Your task to perform on an android device: Clear the cart on newegg. Search for "razer deathadder" on newegg, select the first entry, and add it to the cart. Image 0: 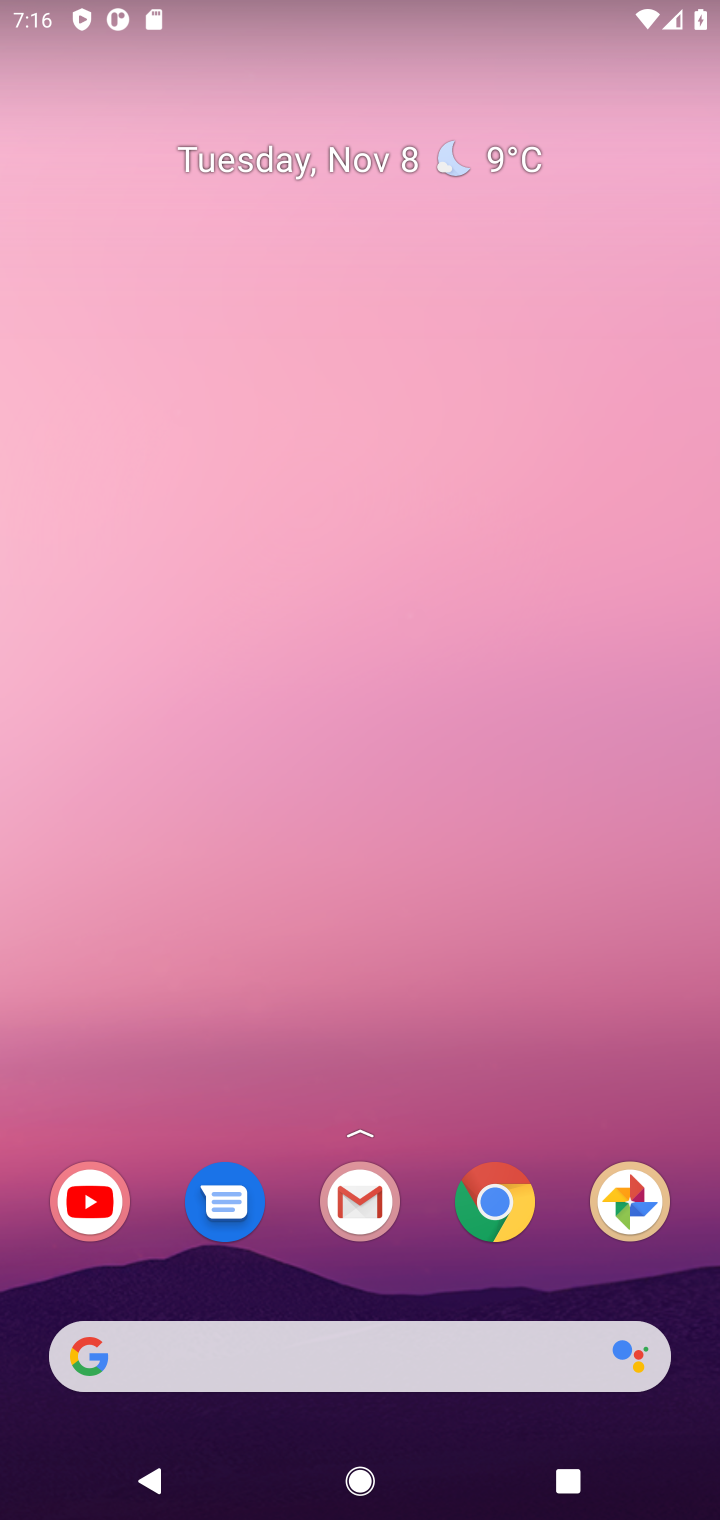
Step 0: click (287, 1321)
Your task to perform on an android device: Clear the cart on newegg. Search for "razer deathadder" on newegg, select the first entry, and add it to the cart. Image 1: 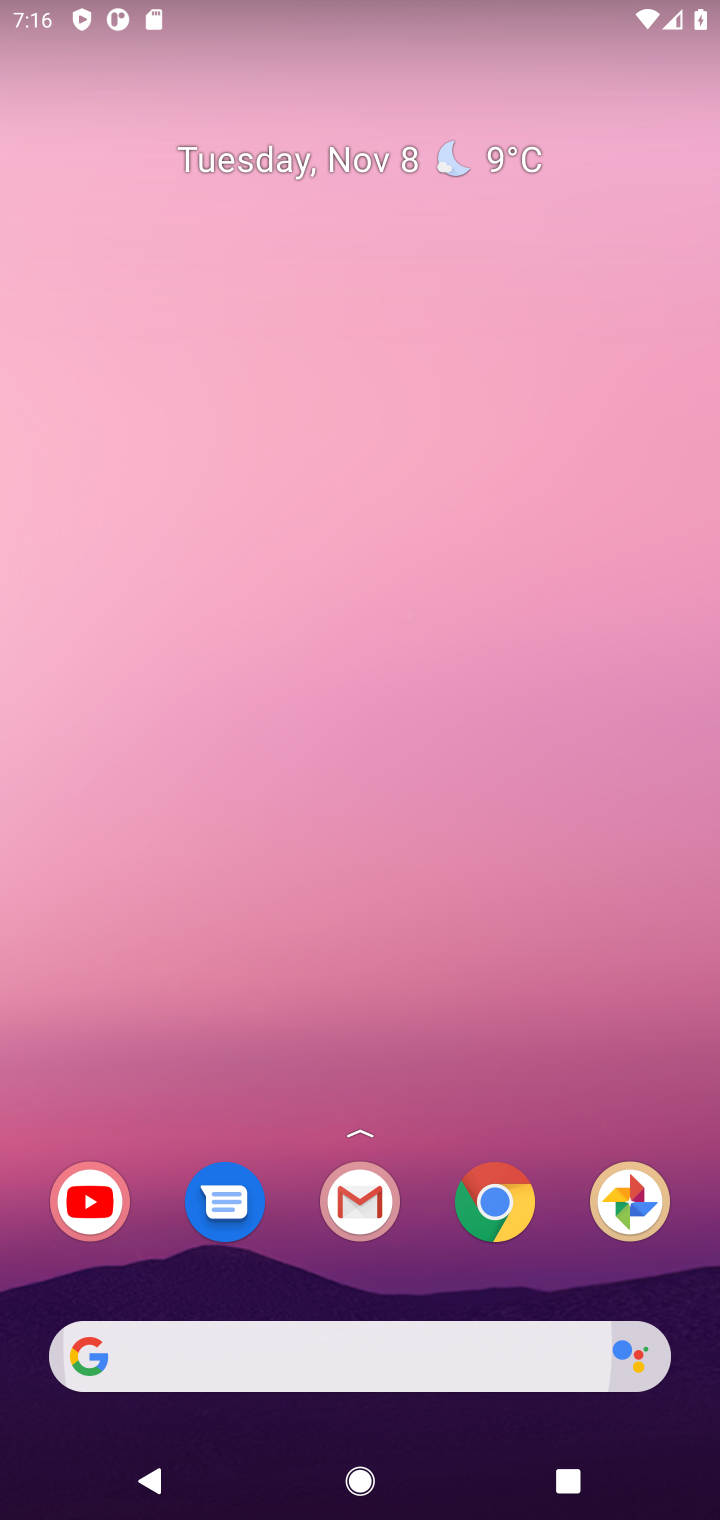
Step 1: click (290, 1344)
Your task to perform on an android device: Clear the cart on newegg. Search for "razer deathadder" on newegg, select the first entry, and add it to the cart. Image 2: 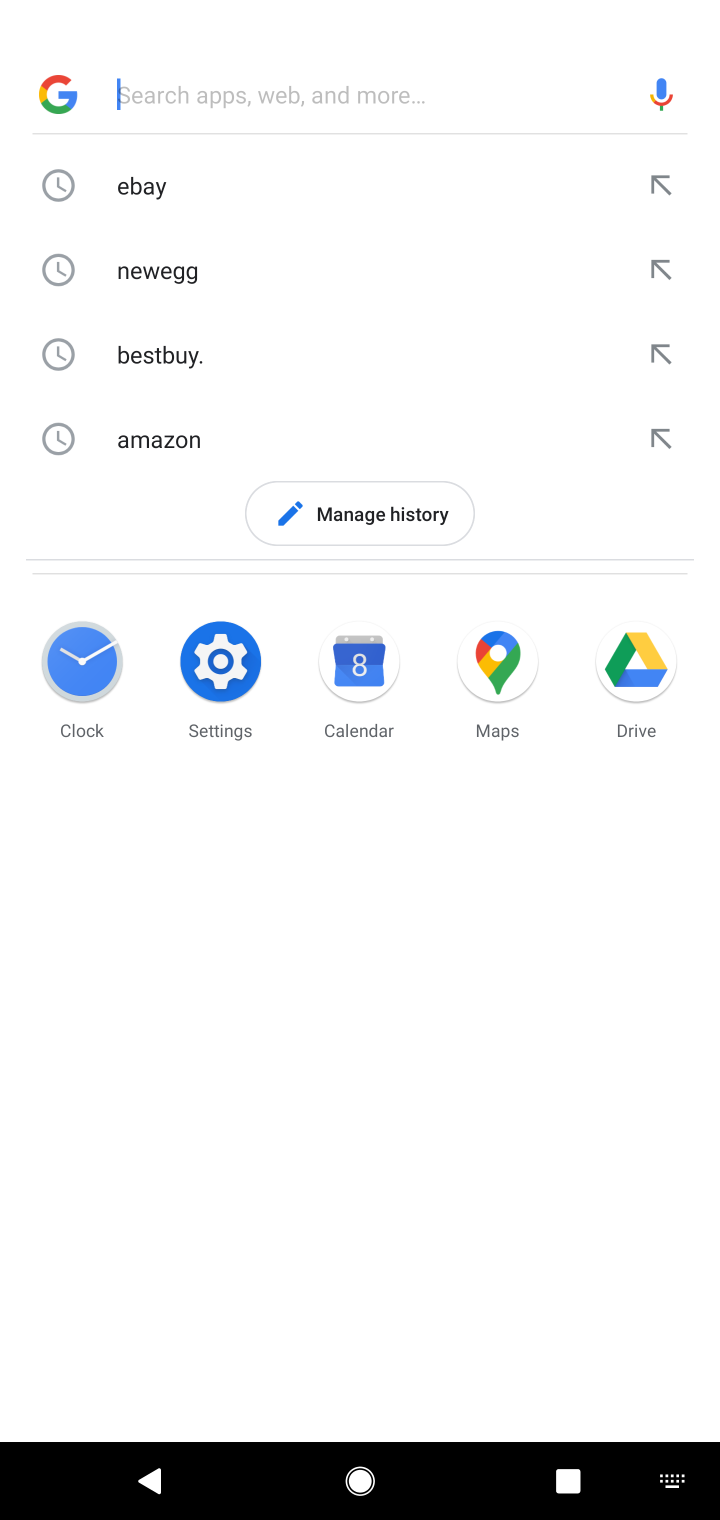
Step 2: click (290, 1344)
Your task to perform on an android device: Clear the cart on newegg. Search for "razer deathadder" on newegg, select the first entry, and add it to the cart. Image 3: 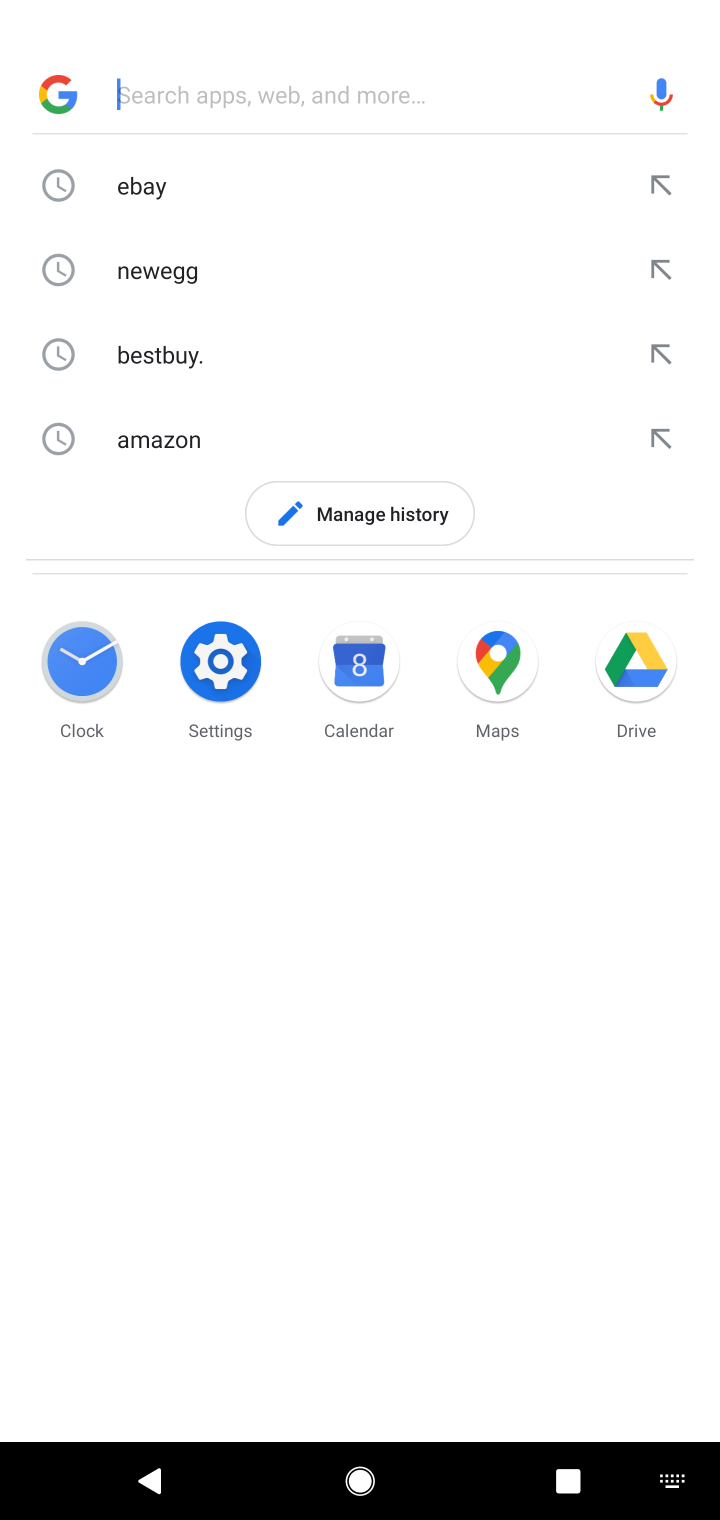
Step 3: type "newegg"
Your task to perform on an android device: Clear the cart on newegg. Search for "razer deathadder" on newegg, select the first entry, and add it to the cart. Image 4: 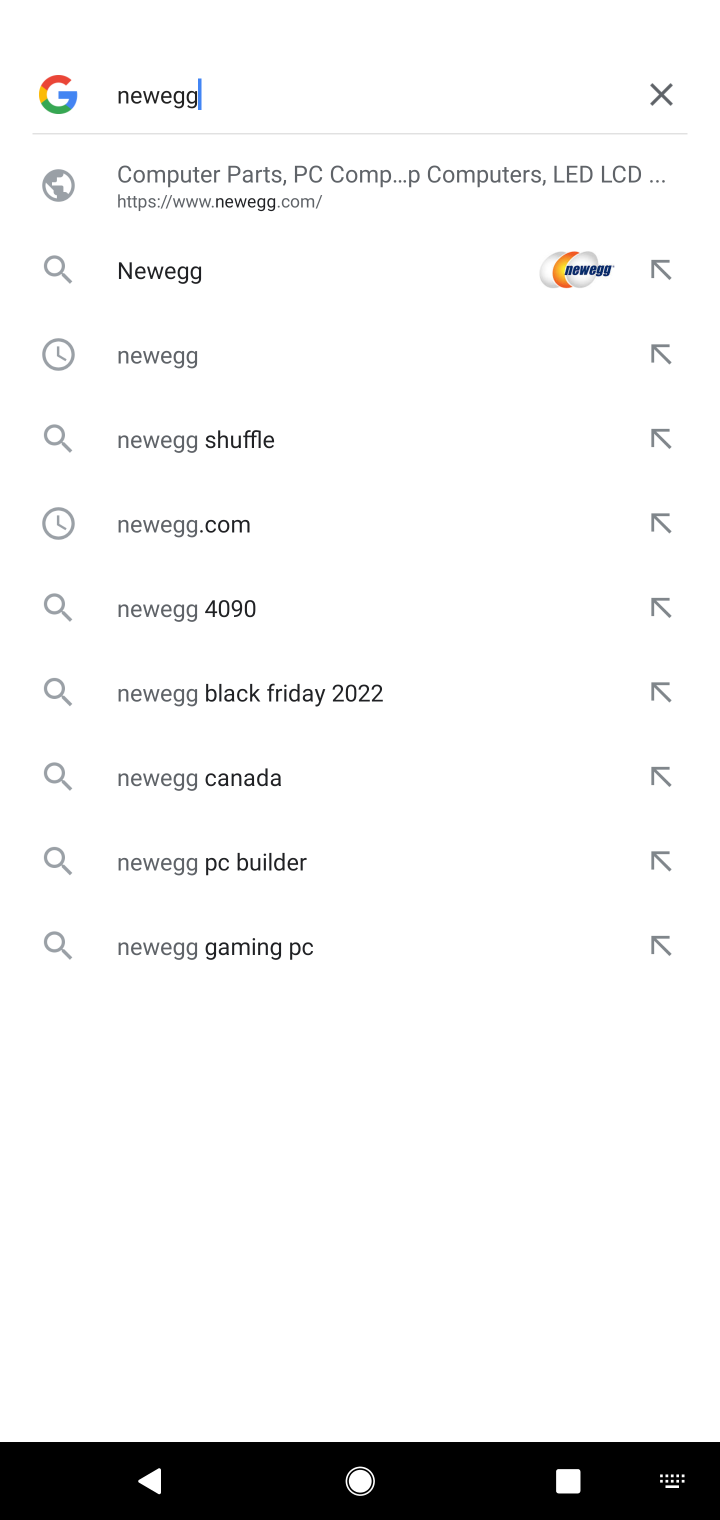
Step 4: type ""
Your task to perform on an android device: Clear the cart on newegg. Search for "razer deathadder" on newegg, select the first entry, and add it to the cart. Image 5: 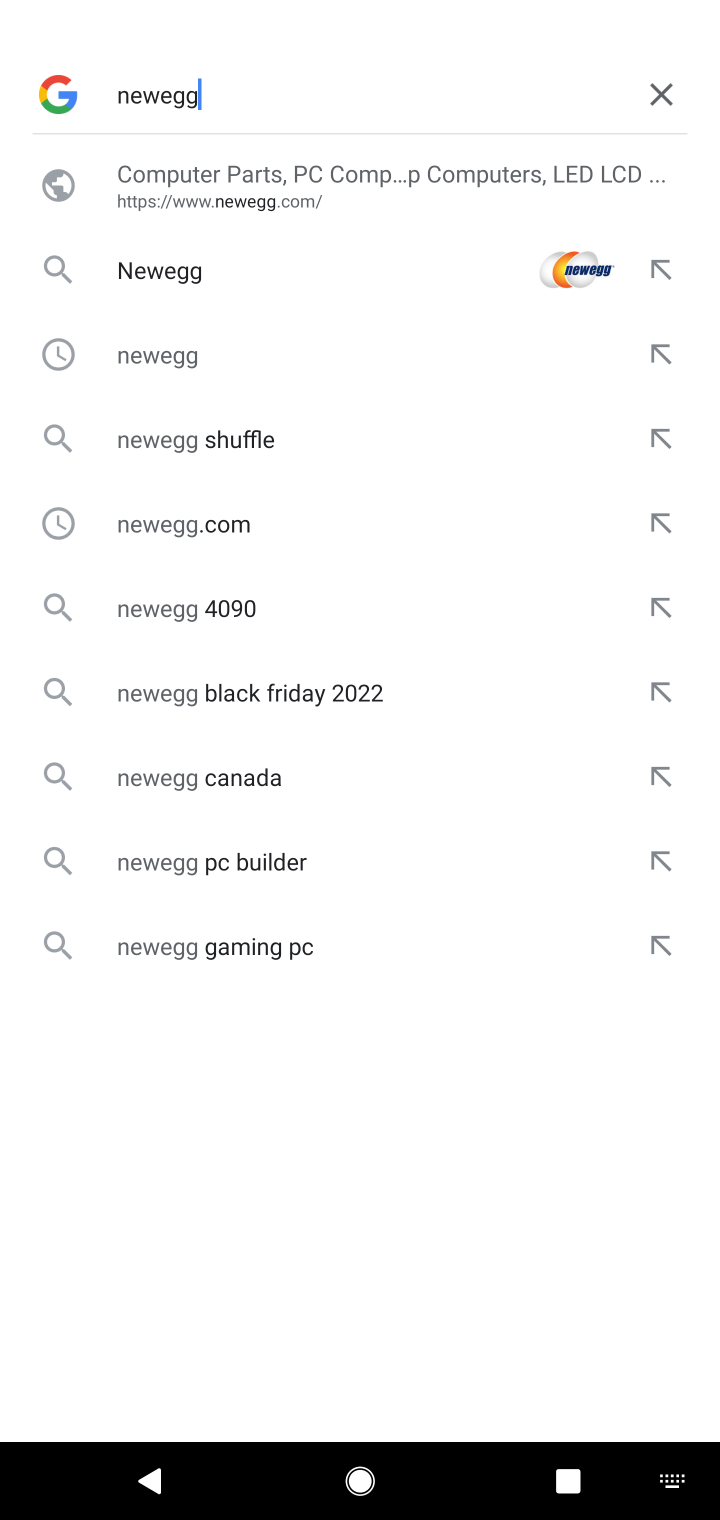
Step 5: press enter
Your task to perform on an android device: Clear the cart on newegg. Search for "razer deathadder" on newegg, select the first entry, and add it to the cart. Image 6: 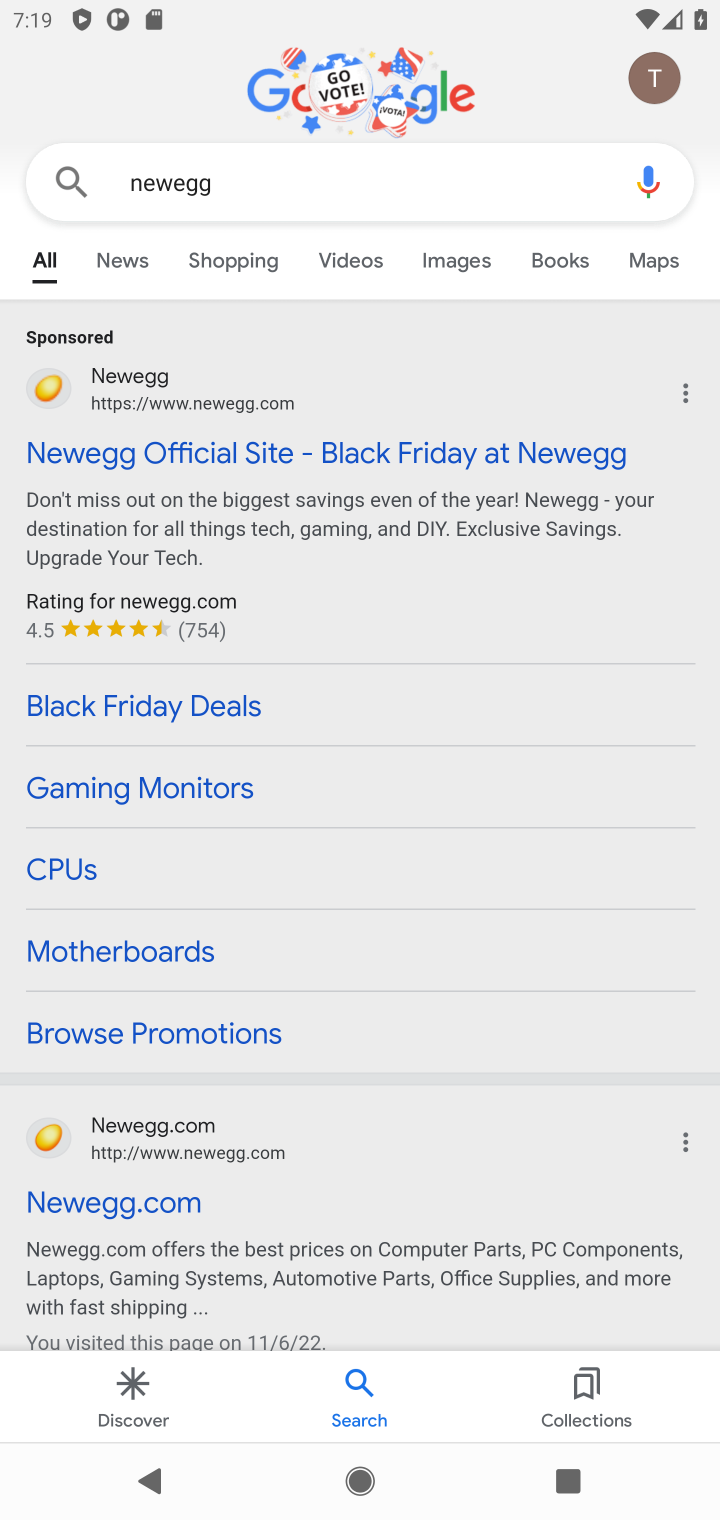
Step 6: click (240, 452)
Your task to perform on an android device: Clear the cart on newegg. Search for "razer deathadder" on newegg, select the first entry, and add it to the cart. Image 7: 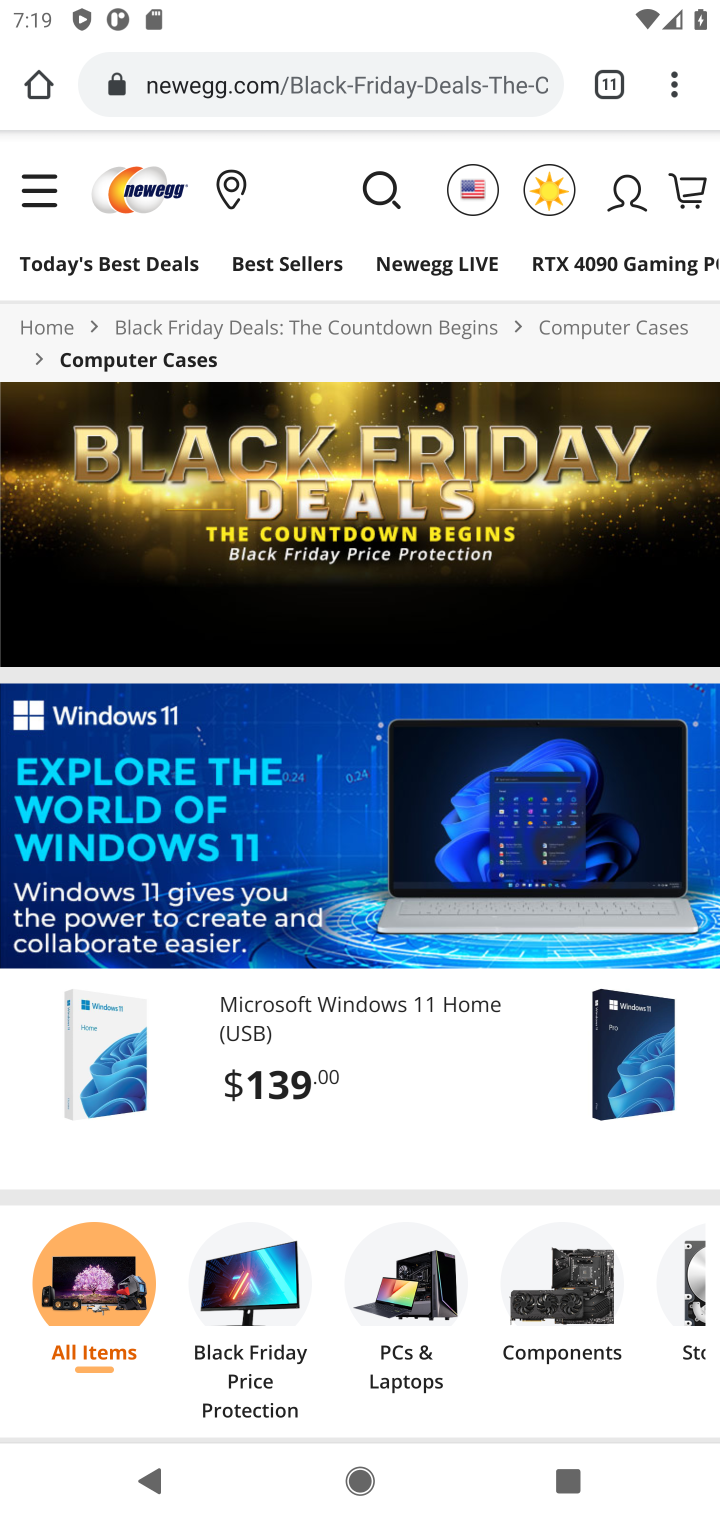
Step 7: drag from (292, 693) to (346, 349)
Your task to perform on an android device: Clear the cart on newegg. Search for "razer deathadder" on newegg, select the first entry, and add it to the cart. Image 8: 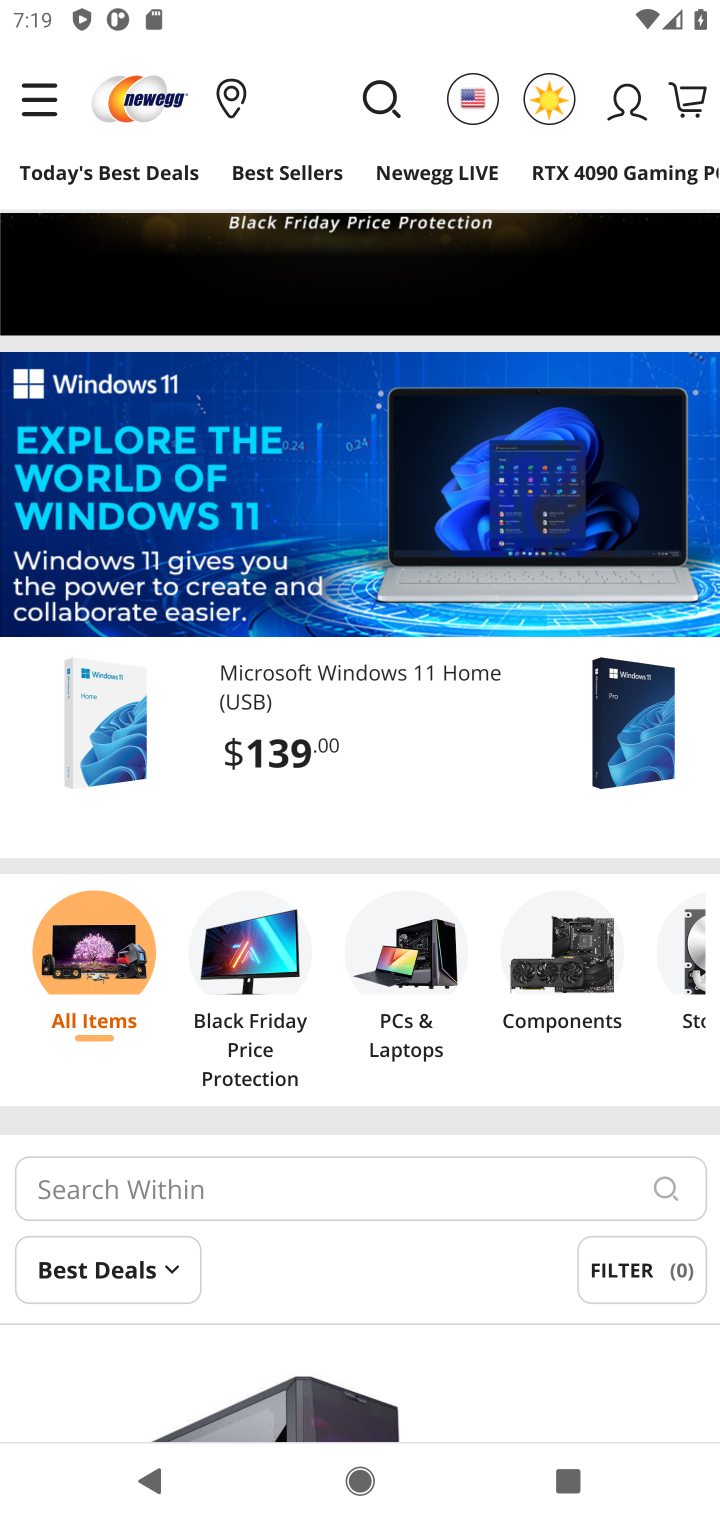
Step 8: click (173, 1164)
Your task to perform on an android device: Clear the cart on newegg. Search for "razer deathadder" on newegg, select the first entry, and add it to the cart. Image 9: 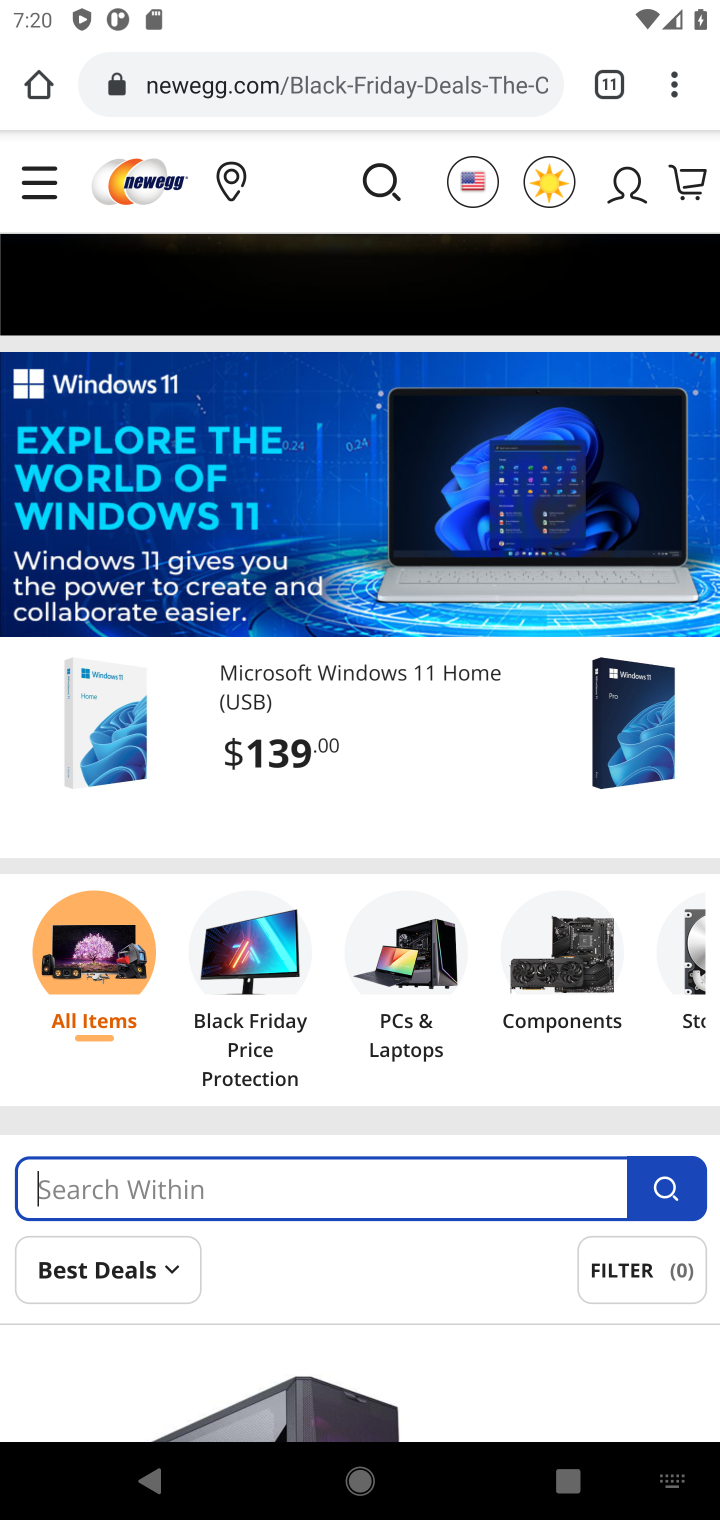
Step 9: type "razer deathadder"
Your task to perform on an android device: Clear the cart on newegg. Search for "razer deathadder" on newegg, select the first entry, and add it to the cart. Image 10: 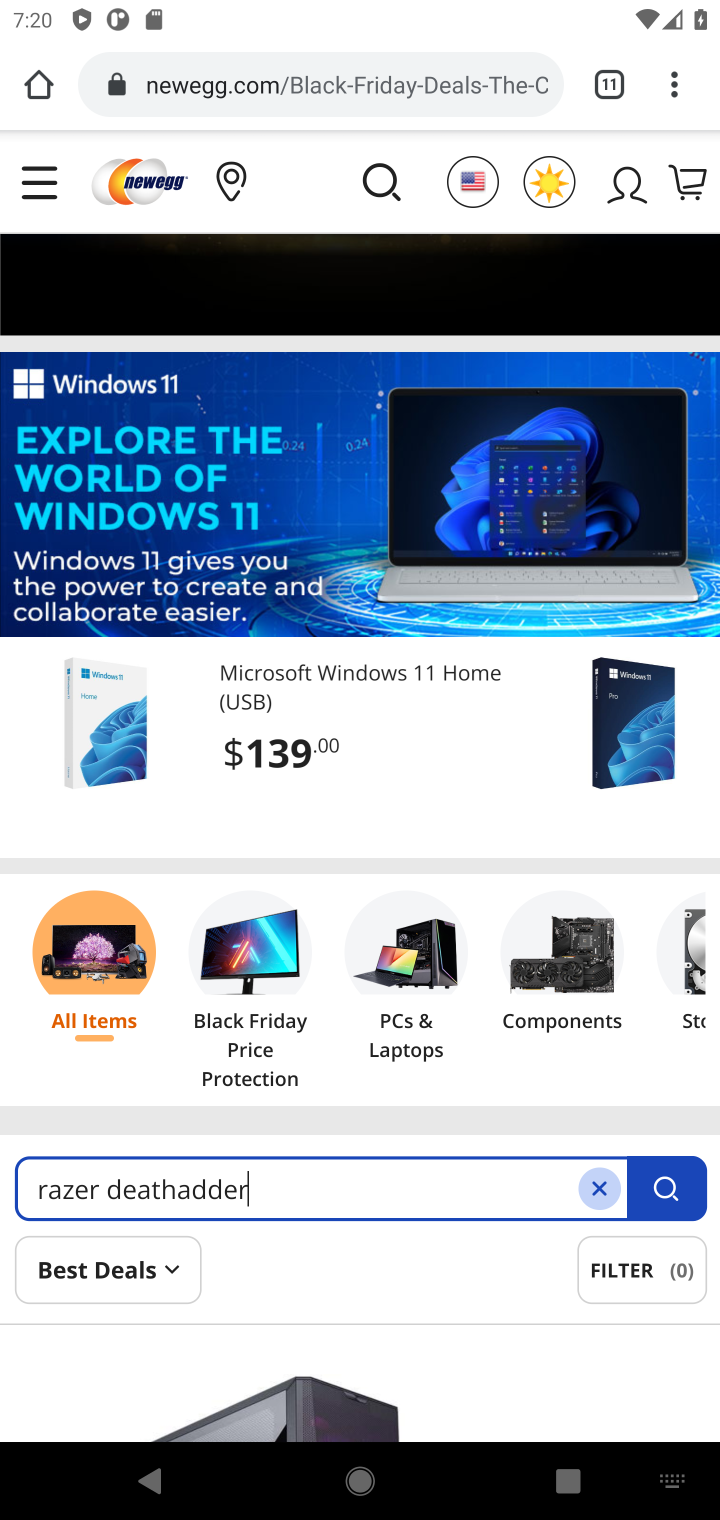
Step 10: type ""
Your task to perform on an android device: Clear the cart on newegg. Search for "razer deathadder" on newegg, select the first entry, and add it to the cart. Image 11: 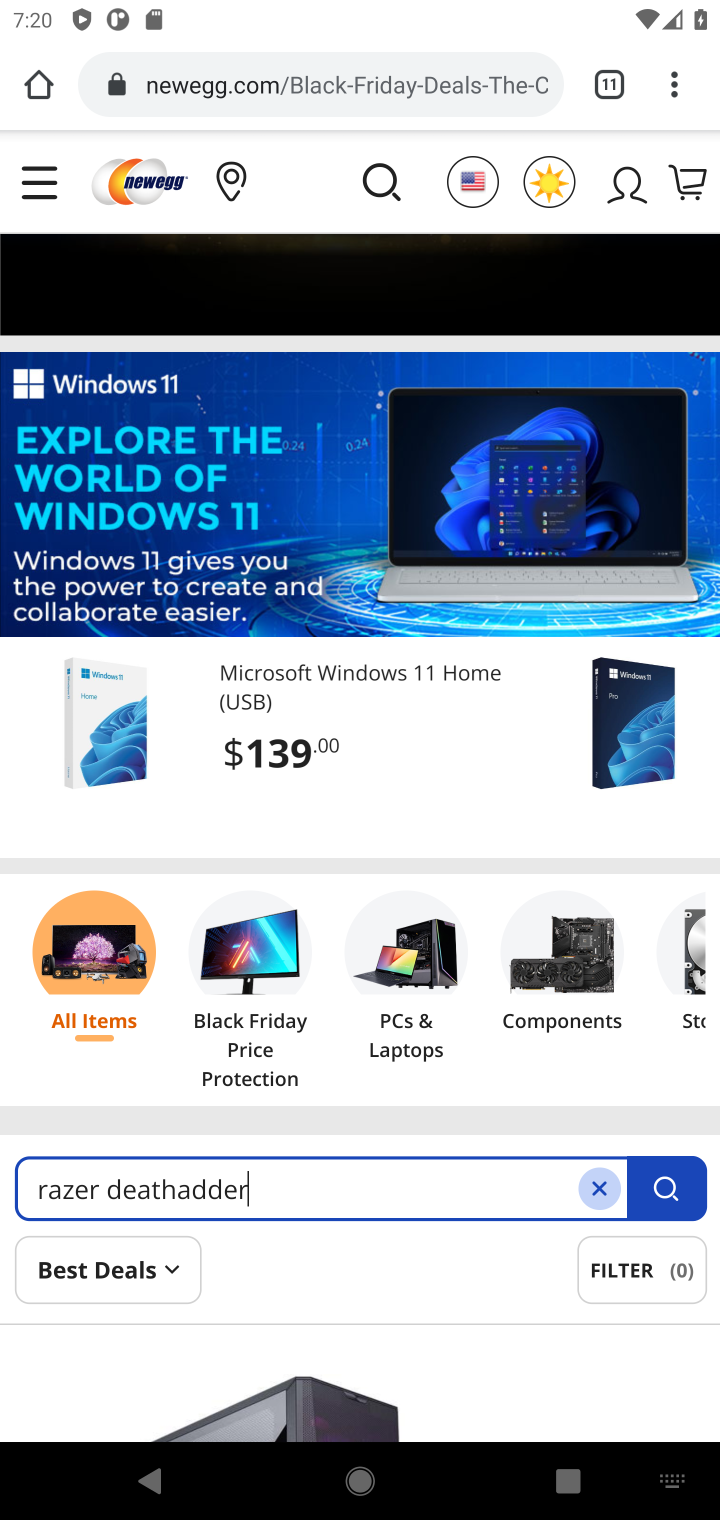
Step 11: press enter
Your task to perform on an android device: Clear the cart on newegg. Search for "razer deathadder" on newegg, select the first entry, and add it to the cart. Image 12: 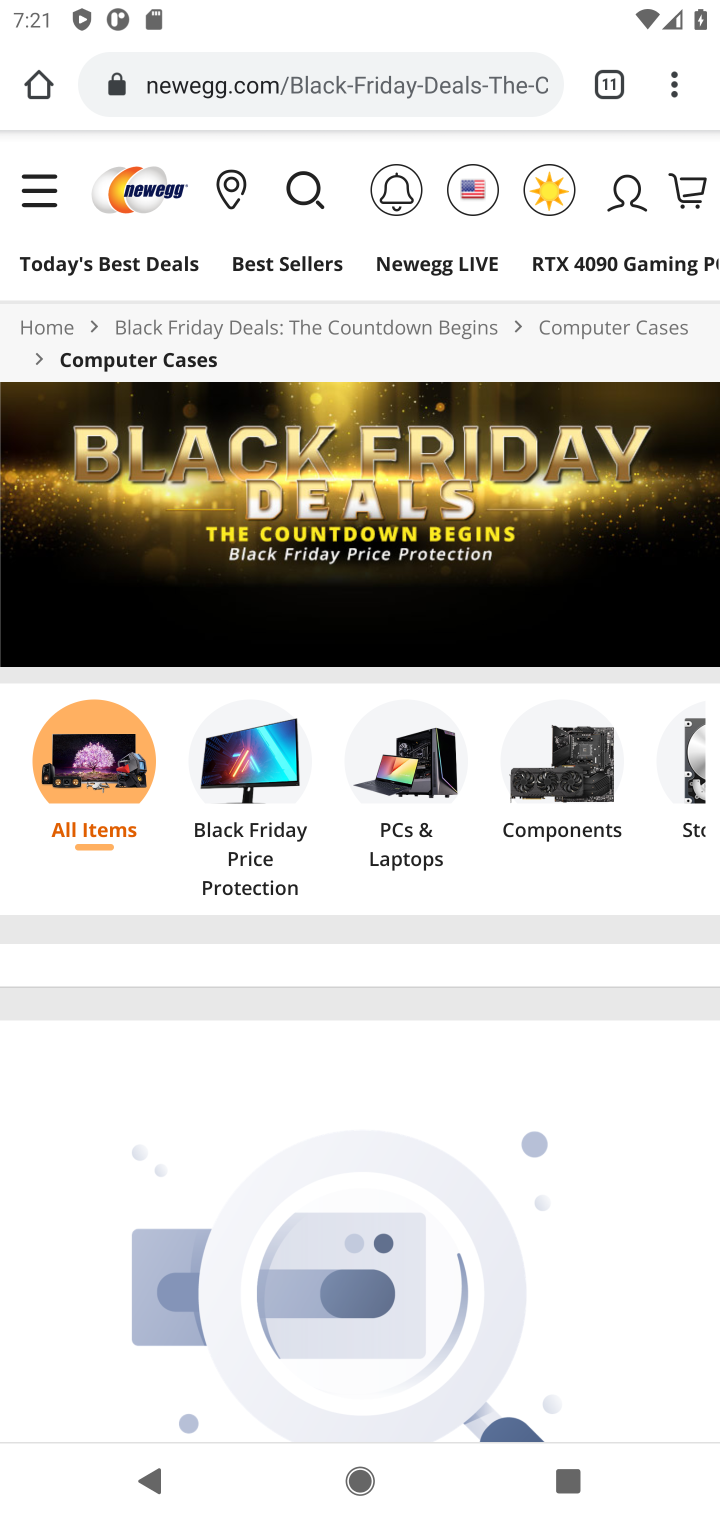
Step 12: task complete